Your task to perform on an android device: Open notification settings Image 0: 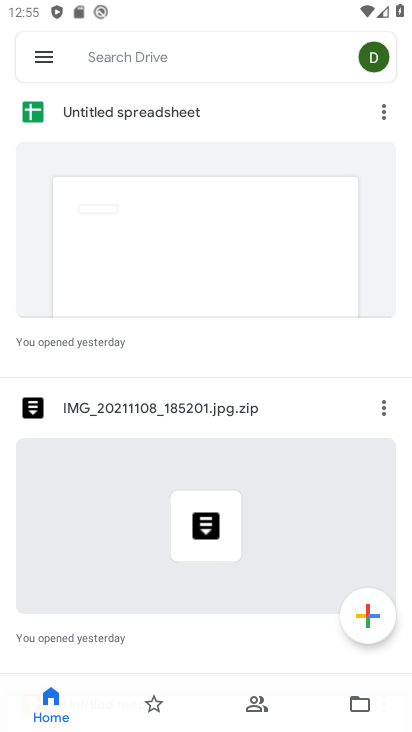
Step 0: press home button
Your task to perform on an android device: Open notification settings Image 1: 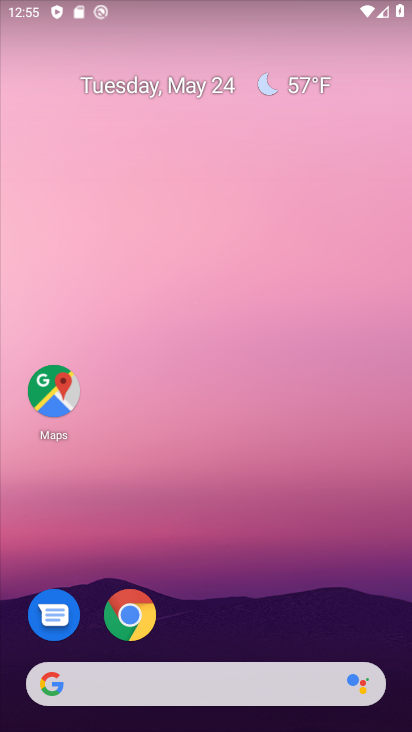
Step 1: drag from (190, 661) to (217, 235)
Your task to perform on an android device: Open notification settings Image 2: 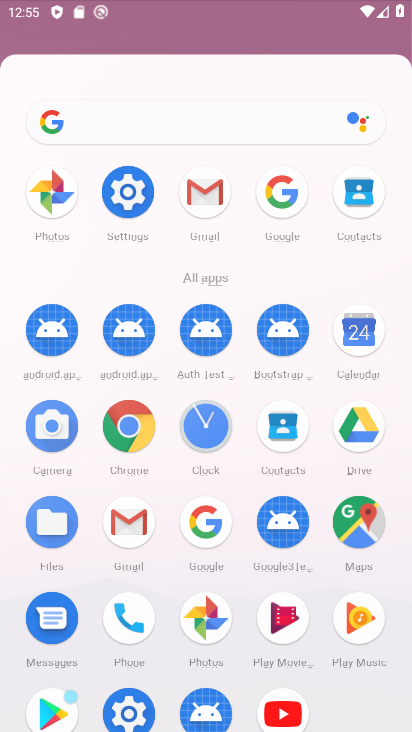
Step 2: click (217, 235)
Your task to perform on an android device: Open notification settings Image 3: 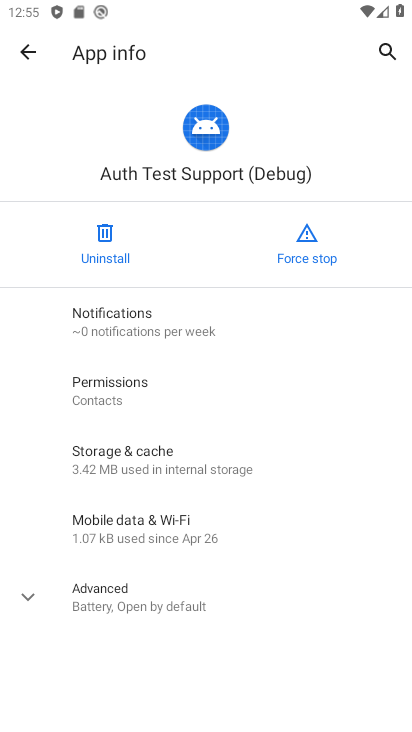
Step 3: click (24, 50)
Your task to perform on an android device: Open notification settings Image 4: 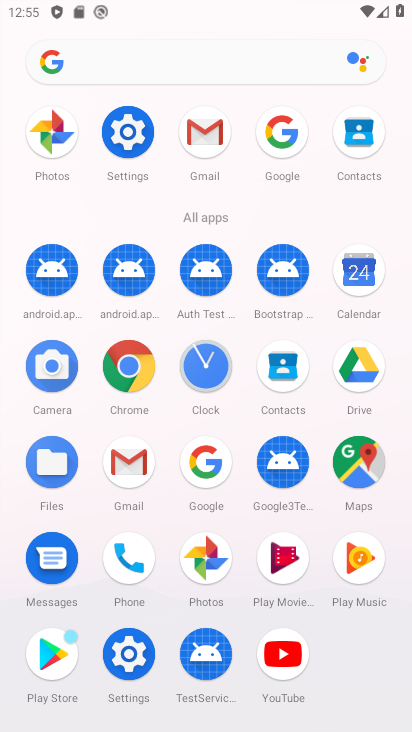
Step 4: click (134, 146)
Your task to perform on an android device: Open notification settings Image 5: 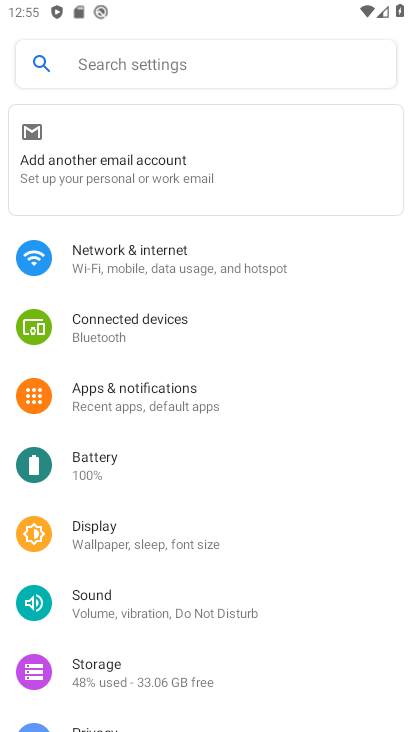
Step 5: click (97, 398)
Your task to perform on an android device: Open notification settings Image 6: 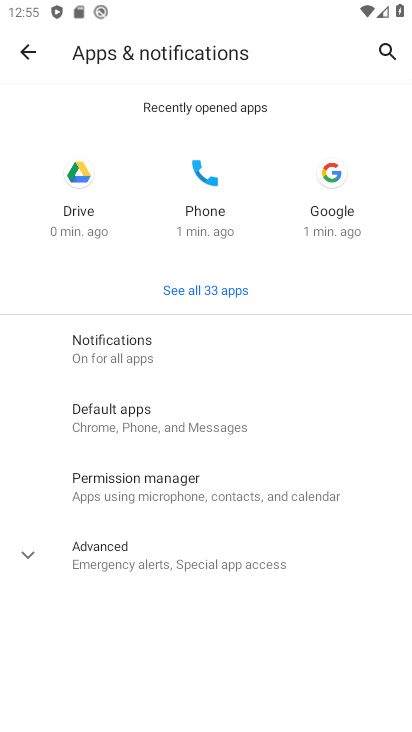
Step 6: click (130, 554)
Your task to perform on an android device: Open notification settings Image 7: 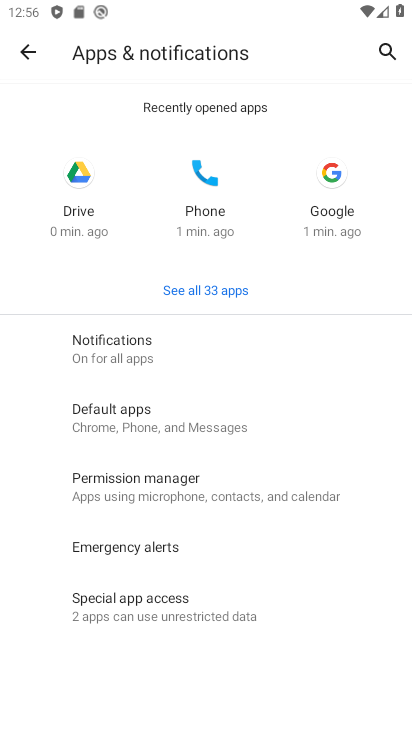
Step 7: task complete